Your task to perform on an android device: refresh tabs in the chrome app Image 0: 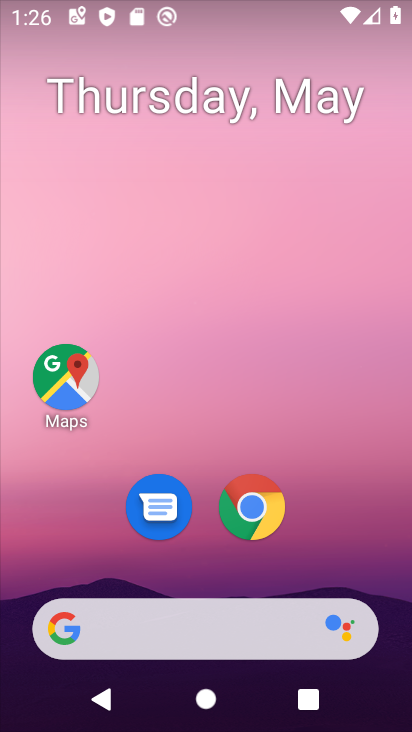
Step 0: drag from (205, 675) to (208, 344)
Your task to perform on an android device: refresh tabs in the chrome app Image 1: 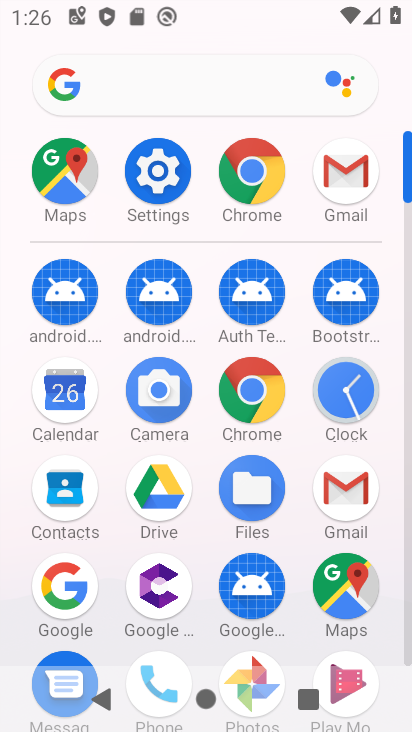
Step 1: press home button
Your task to perform on an android device: refresh tabs in the chrome app Image 2: 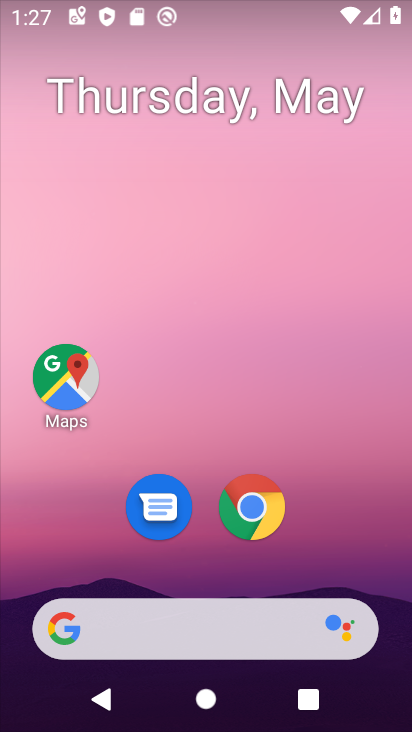
Step 2: drag from (387, 578) to (386, 35)
Your task to perform on an android device: refresh tabs in the chrome app Image 3: 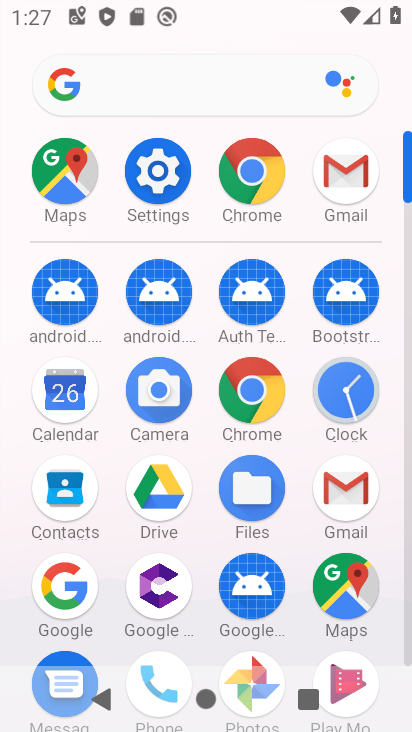
Step 3: click (252, 360)
Your task to perform on an android device: refresh tabs in the chrome app Image 4: 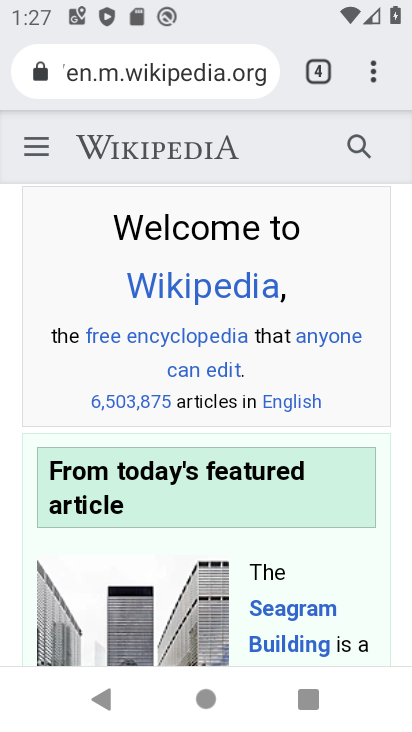
Step 4: drag from (312, 290) to (300, 335)
Your task to perform on an android device: refresh tabs in the chrome app Image 5: 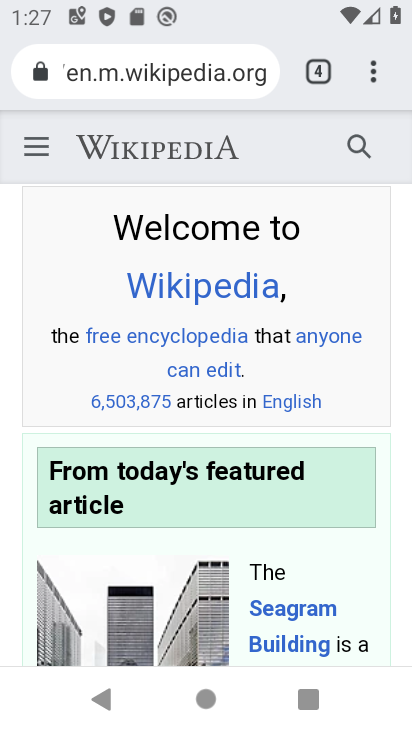
Step 5: click (369, 74)
Your task to perform on an android device: refresh tabs in the chrome app Image 6: 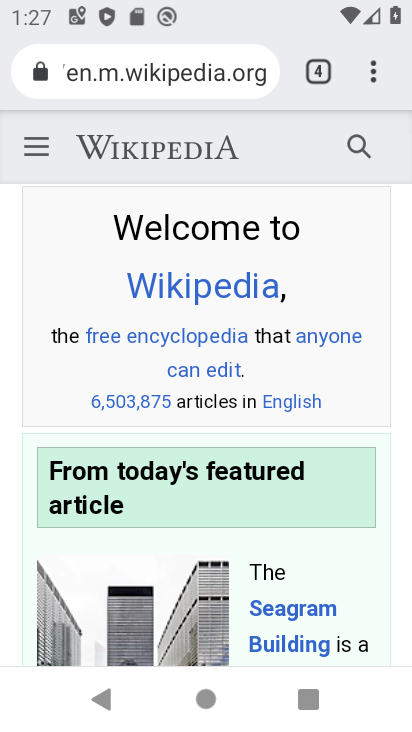
Step 6: task complete